Your task to perform on an android device: Go to Amazon Image 0: 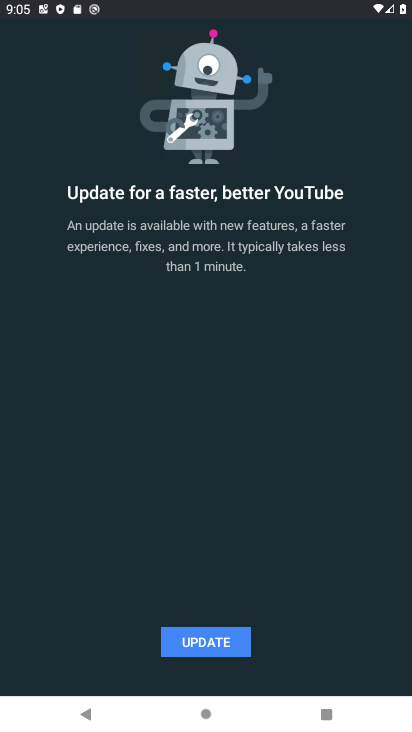
Step 0: press back button
Your task to perform on an android device: Go to Amazon Image 1: 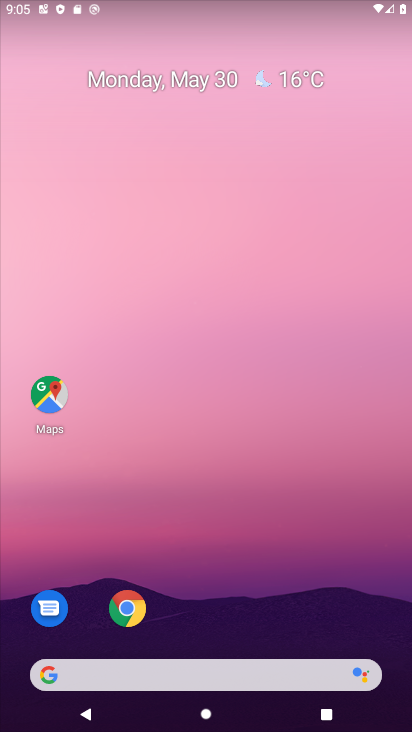
Step 1: click (122, 601)
Your task to perform on an android device: Go to Amazon Image 2: 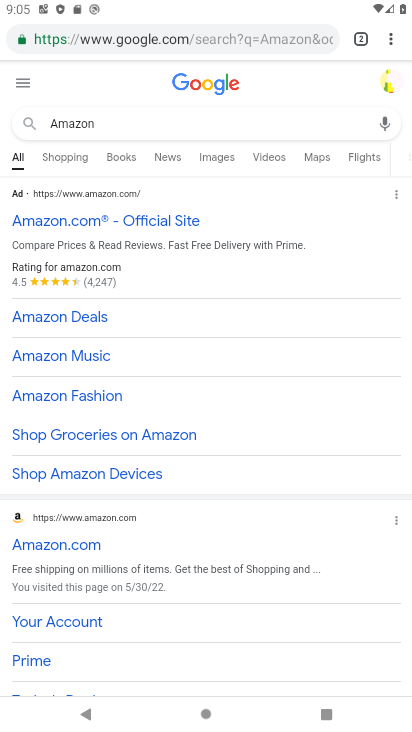
Step 2: click (329, 35)
Your task to perform on an android device: Go to Amazon Image 3: 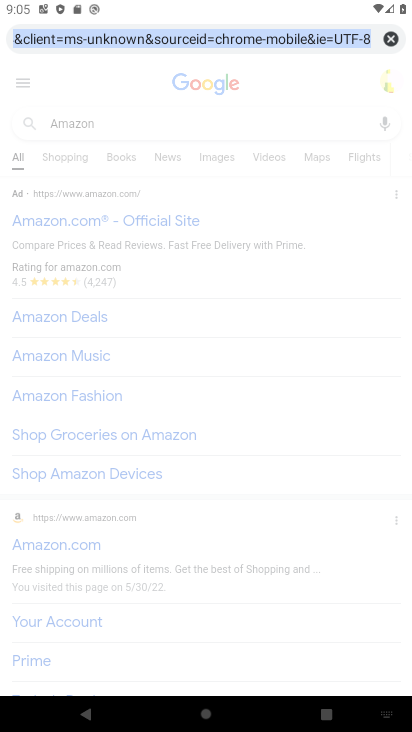
Step 3: click (396, 37)
Your task to perform on an android device: Go to Amazon Image 4: 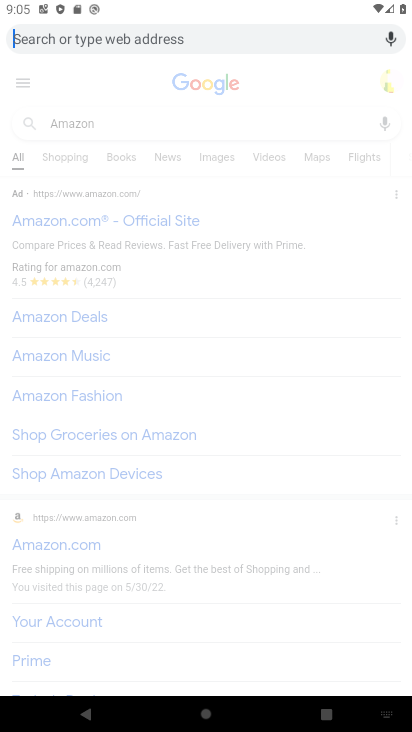
Step 4: type "Amazon"
Your task to perform on an android device: Go to Amazon Image 5: 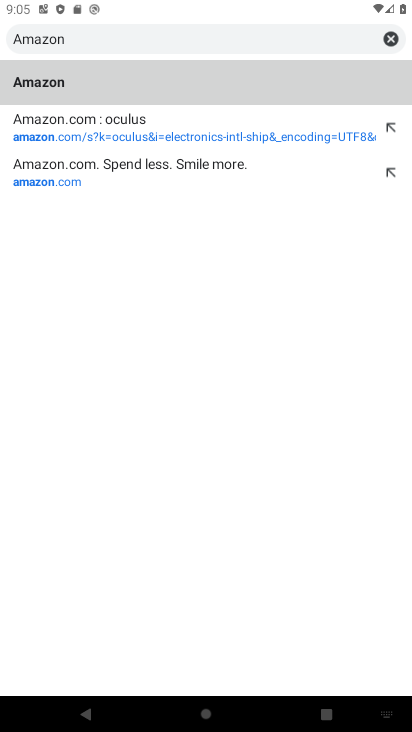
Step 5: click (45, 87)
Your task to perform on an android device: Go to Amazon Image 6: 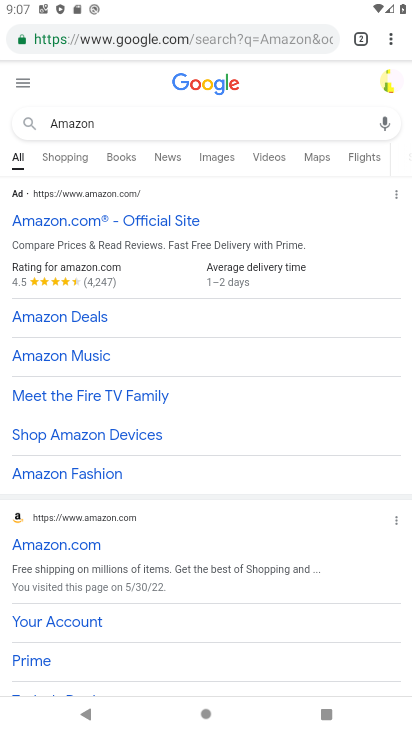
Step 6: task complete